Your task to perform on an android device: Go to battery settings Image 0: 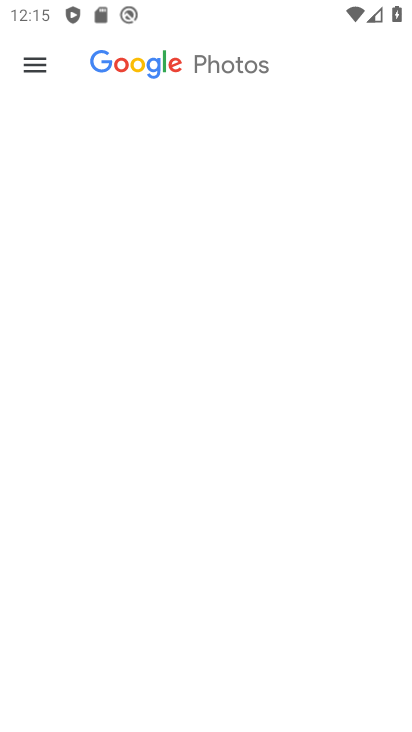
Step 0: drag from (327, 591) to (308, 347)
Your task to perform on an android device: Go to battery settings Image 1: 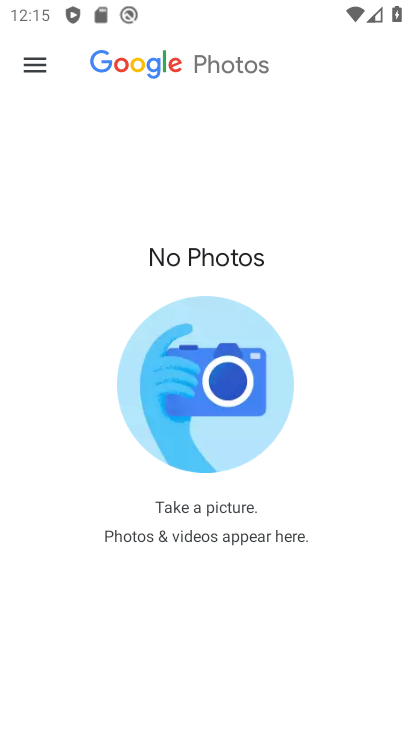
Step 1: click (33, 78)
Your task to perform on an android device: Go to battery settings Image 2: 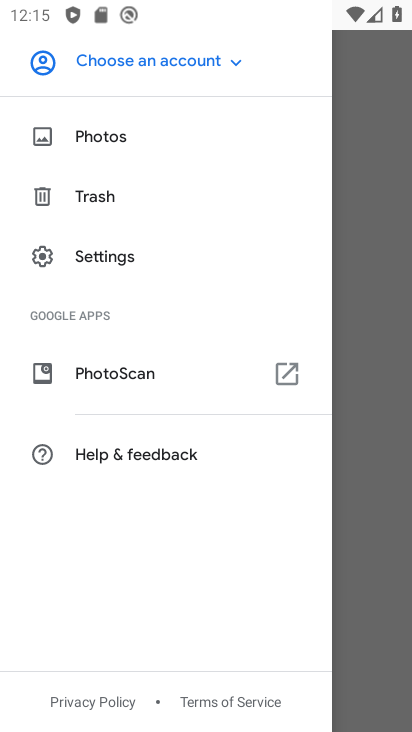
Step 2: press home button
Your task to perform on an android device: Go to battery settings Image 3: 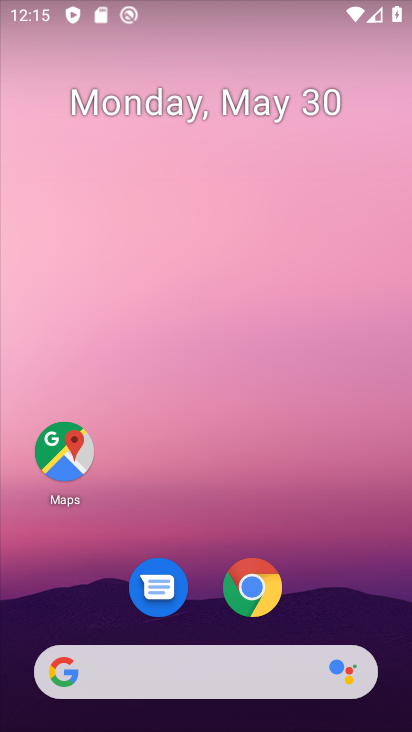
Step 3: drag from (357, 567) to (327, 6)
Your task to perform on an android device: Go to battery settings Image 4: 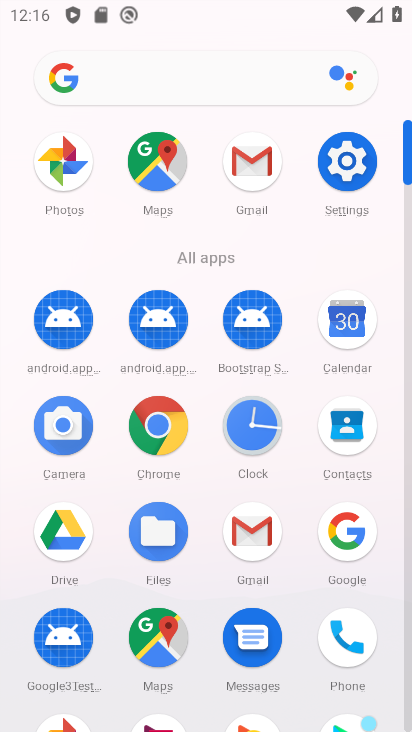
Step 4: click (355, 162)
Your task to perform on an android device: Go to battery settings Image 5: 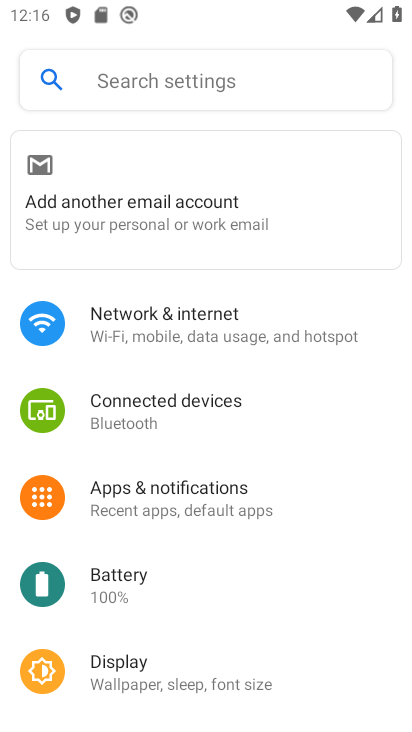
Step 5: click (172, 589)
Your task to perform on an android device: Go to battery settings Image 6: 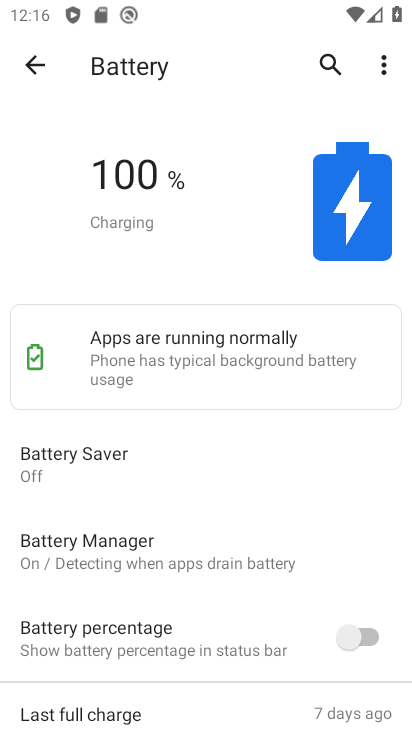
Step 6: task complete